Your task to perform on an android device: toggle show notifications on the lock screen Image 0: 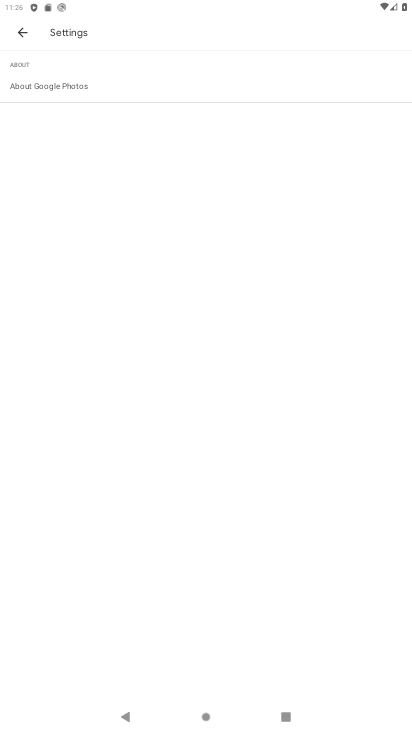
Step 0: press home button
Your task to perform on an android device: toggle show notifications on the lock screen Image 1: 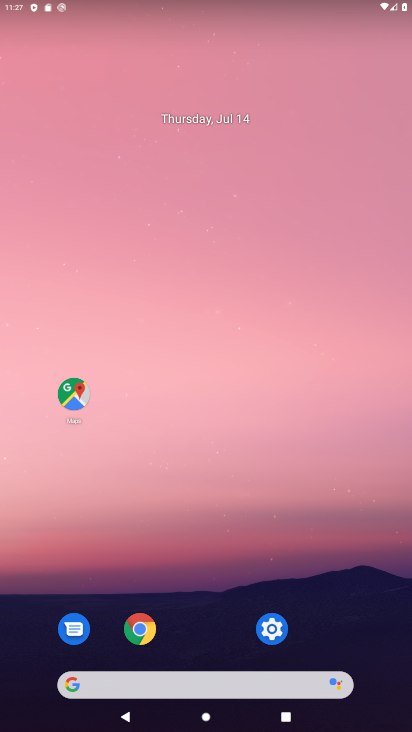
Step 1: click (275, 631)
Your task to perform on an android device: toggle show notifications on the lock screen Image 2: 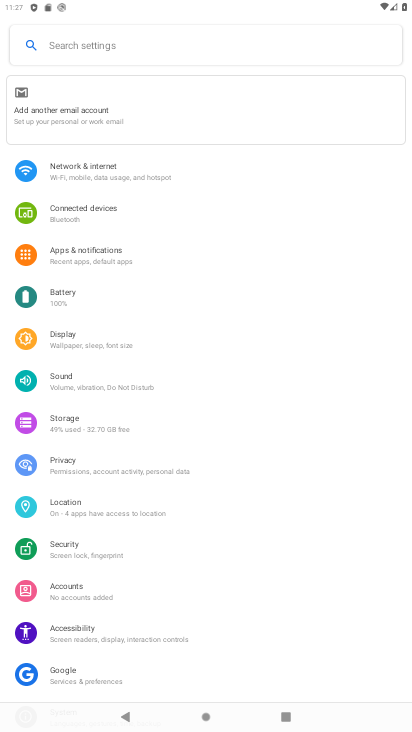
Step 2: click (88, 48)
Your task to perform on an android device: toggle show notifications on the lock screen Image 3: 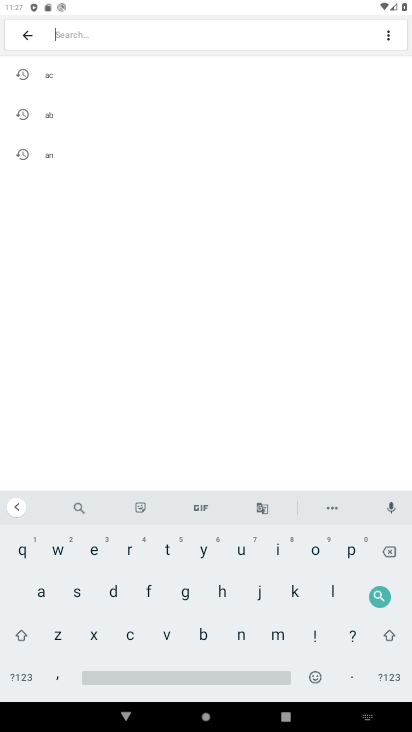
Step 3: click (237, 639)
Your task to perform on an android device: toggle show notifications on the lock screen Image 4: 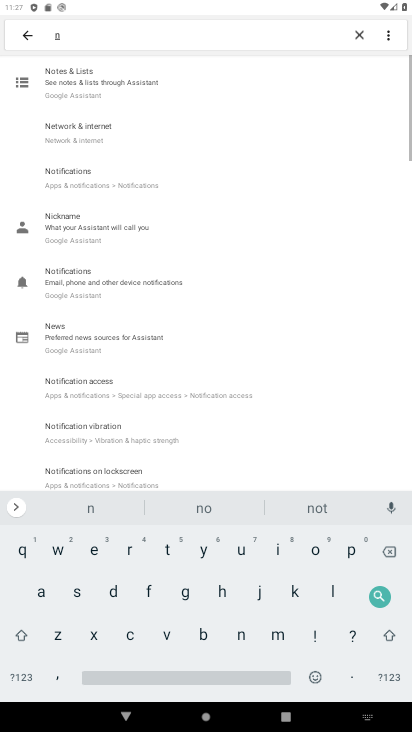
Step 4: click (313, 552)
Your task to perform on an android device: toggle show notifications on the lock screen Image 5: 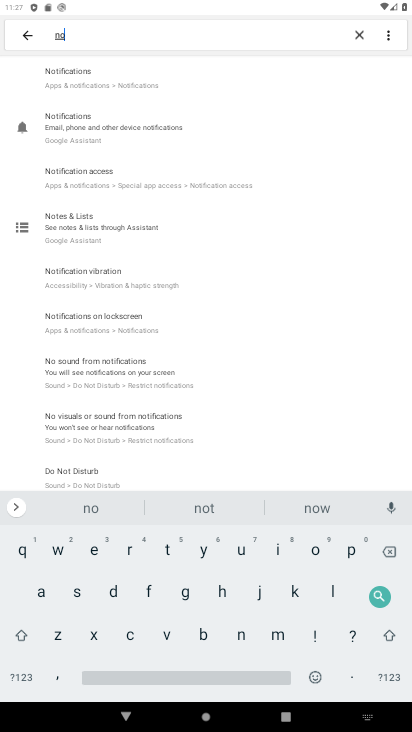
Step 5: click (87, 78)
Your task to perform on an android device: toggle show notifications on the lock screen Image 6: 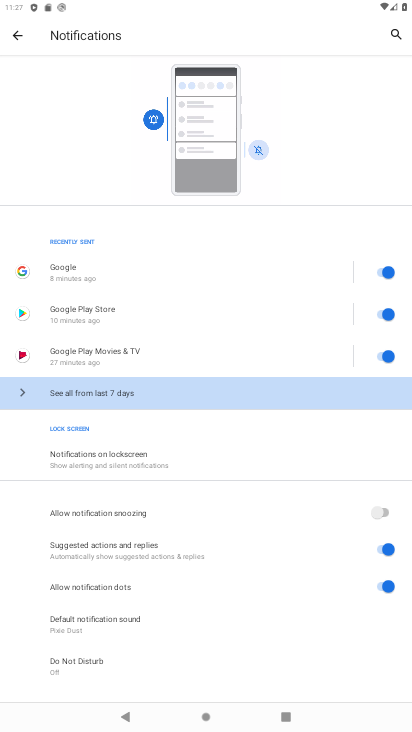
Step 6: click (120, 461)
Your task to perform on an android device: toggle show notifications on the lock screen Image 7: 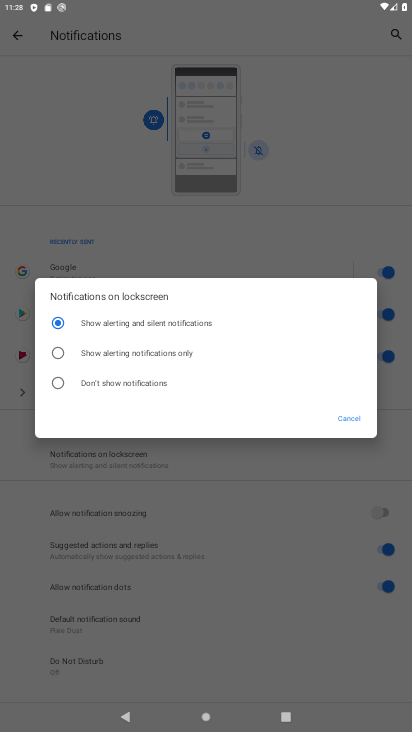
Step 7: task complete